Your task to perform on an android device: turn off improve location accuracy Image 0: 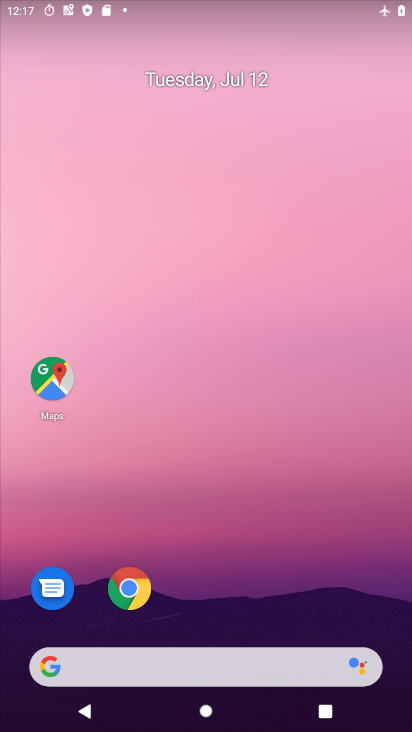
Step 0: drag from (305, 569) to (218, 66)
Your task to perform on an android device: turn off improve location accuracy Image 1: 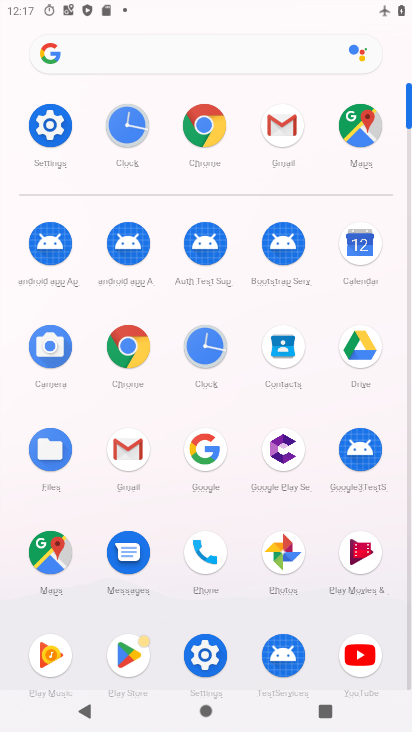
Step 1: click (48, 129)
Your task to perform on an android device: turn off improve location accuracy Image 2: 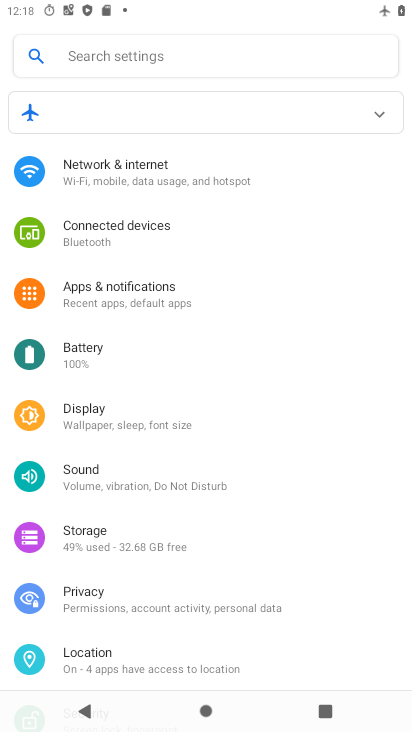
Step 2: click (99, 651)
Your task to perform on an android device: turn off improve location accuracy Image 3: 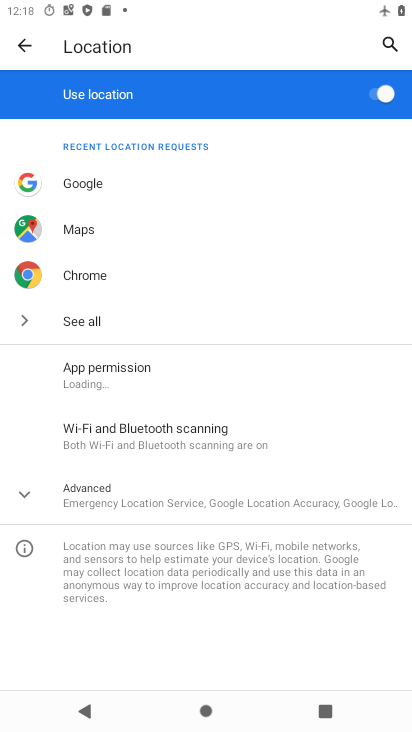
Step 3: click (111, 500)
Your task to perform on an android device: turn off improve location accuracy Image 4: 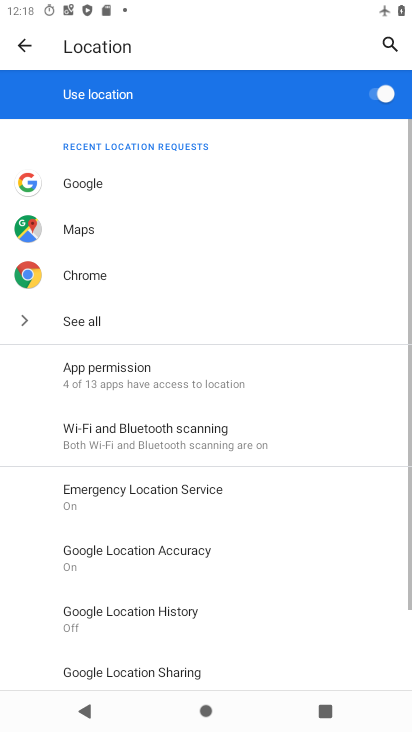
Step 4: click (183, 553)
Your task to perform on an android device: turn off improve location accuracy Image 5: 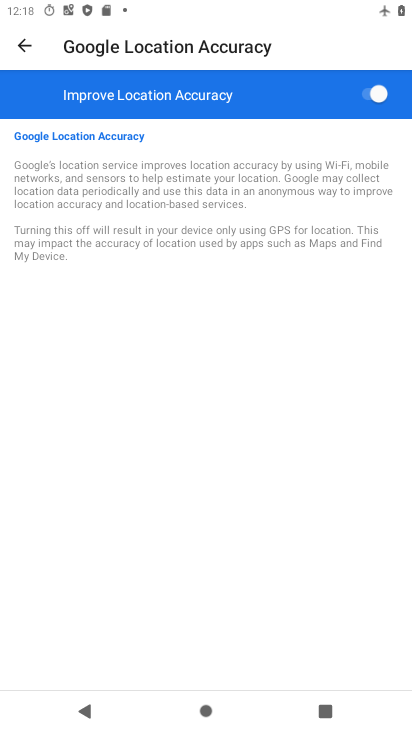
Step 5: click (377, 91)
Your task to perform on an android device: turn off improve location accuracy Image 6: 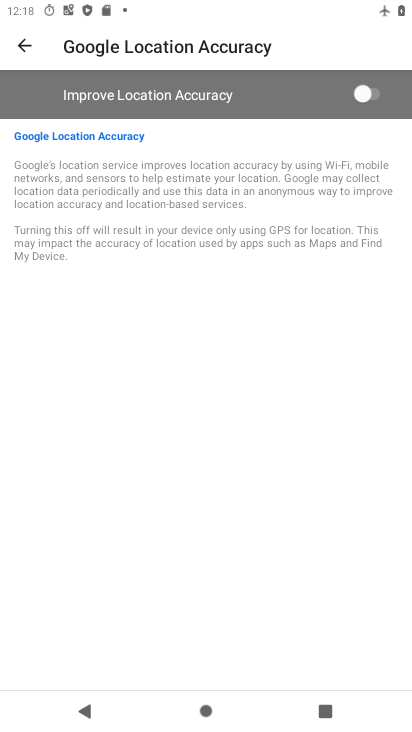
Step 6: task complete